Your task to perform on an android device: turn smart compose on in the gmail app Image 0: 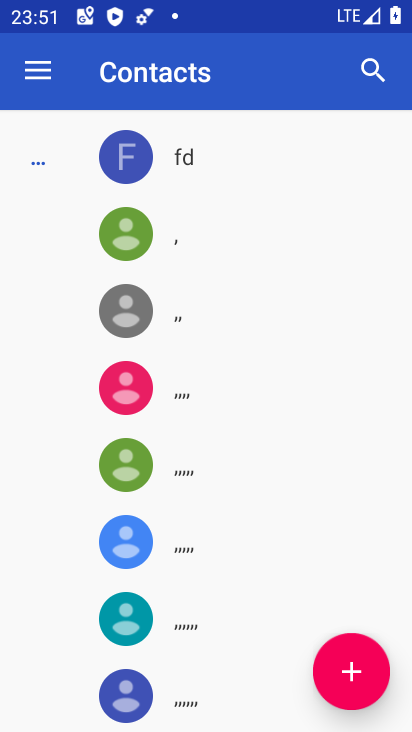
Step 0: press home button
Your task to perform on an android device: turn smart compose on in the gmail app Image 1: 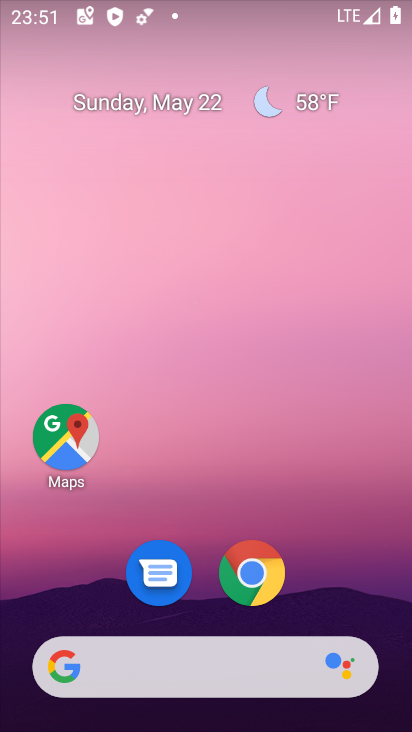
Step 1: drag from (187, 615) to (197, 11)
Your task to perform on an android device: turn smart compose on in the gmail app Image 2: 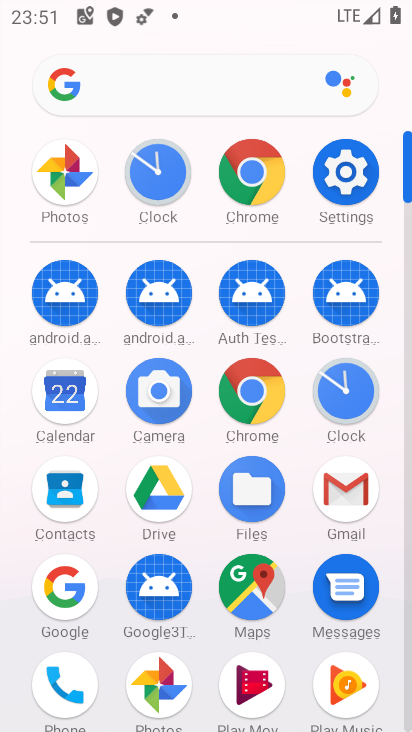
Step 2: click (339, 489)
Your task to perform on an android device: turn smart compose on in the gmail app Image 3: 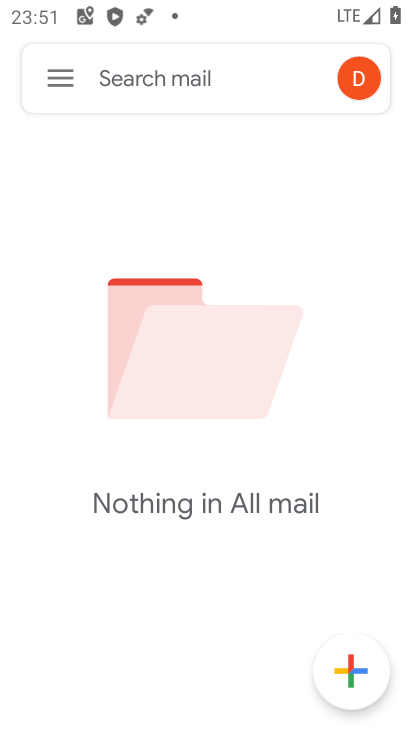
Step 3: click (57, 70)
Your task to perform on an android device: turn smart compose on in the gmail app Image 4: 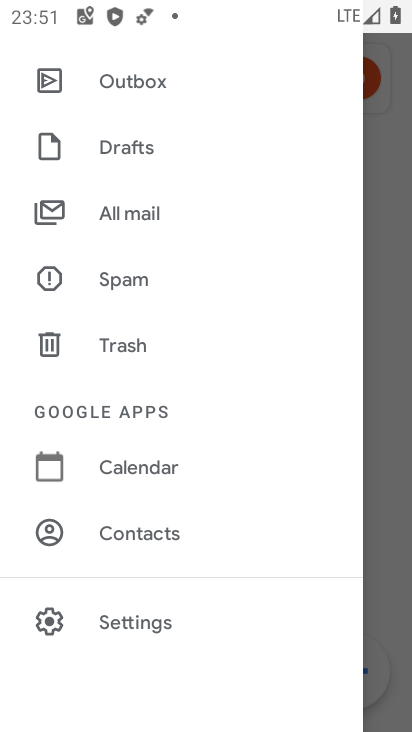
Step 4: click (152, 624)
Your task to perform on an android device: turn smart compose on in the gmail app Image 5: 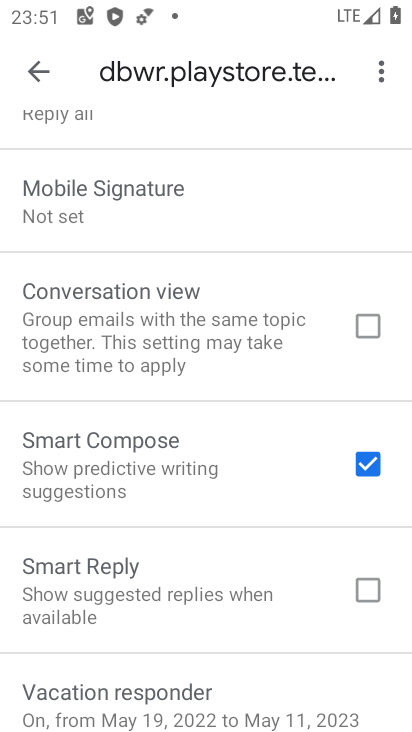
Step 5: task complete